Your task to perform on an android device: Open the calendar and show me this week's events Image 0: 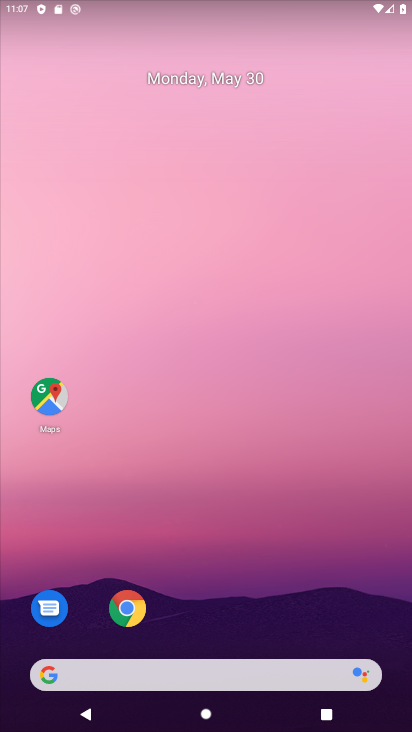
Step 0: drag from (271, 631) to (275, 4)
Your task to perform on an android device: Open the calendar and show me this week's events Image 1: 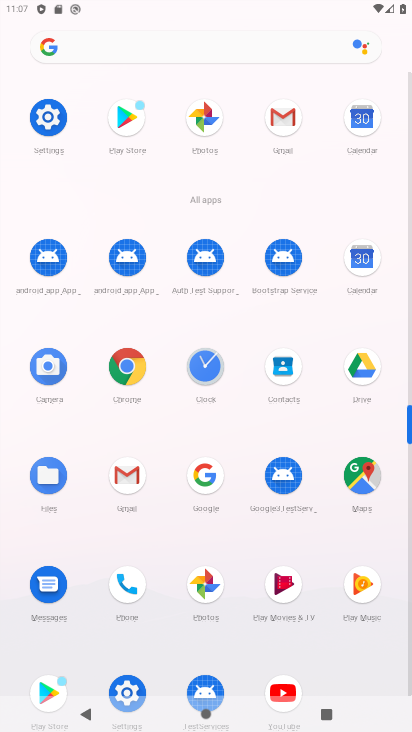
Step 1: click (350, 122)
Your task to perform on an android device: Open the calendar and show me this week's events Image 2: 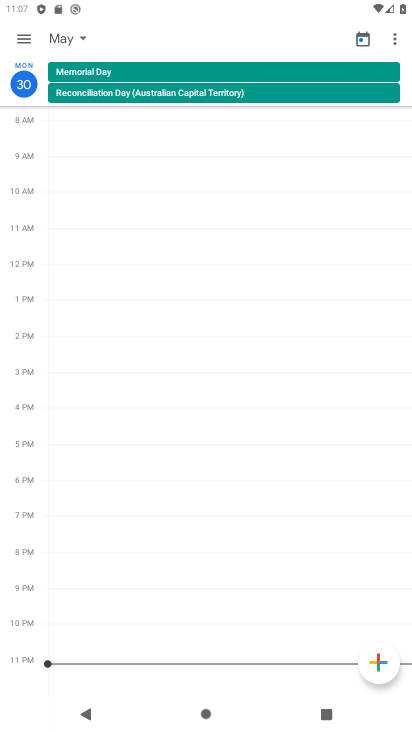
Step 2: click (21, 38)
Your task to perform on an android device: Open the calendar and show me this week's events Image 3: 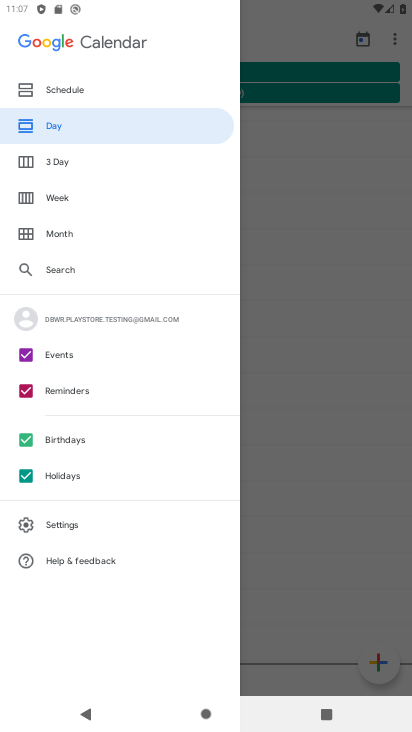
Step 3: click (30, 198)
Your task to perform on an android device: Open the calendar and show me this week's events Image 4: 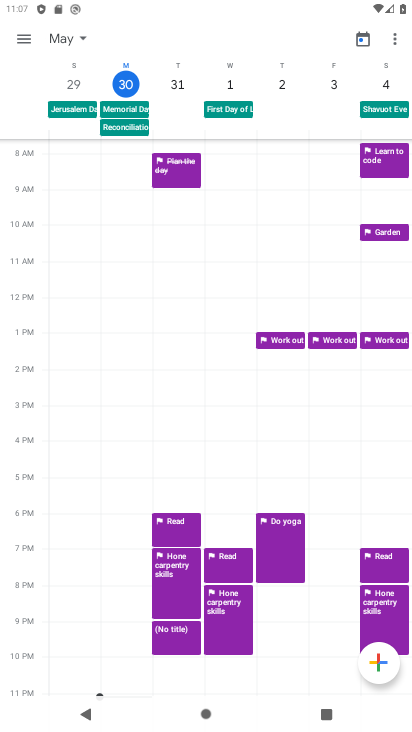
Step 4: click (19, 45)
Your task to perform on an android device: Open the calendar and show me this week's events Image 5: 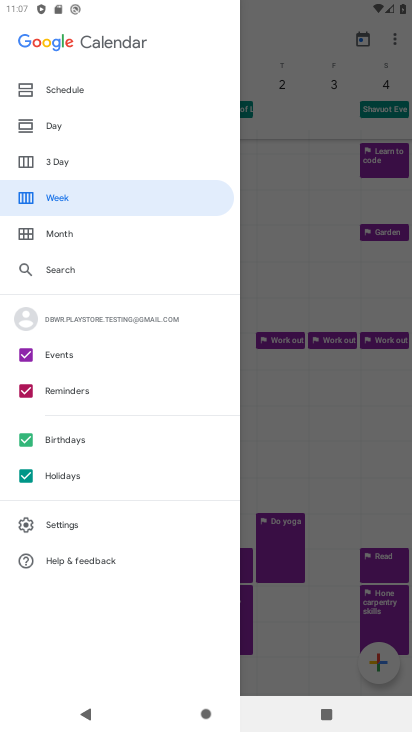
Step 5: click (24, 391)
Your task to perform on an android device: Open the calendar and show me this week's events Image 6: 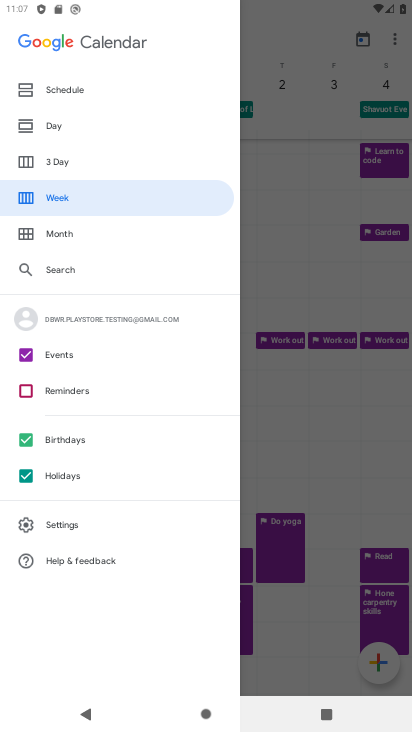
Step 6: click (18, 444)
Your task to perform on an android device: Open the calendar and show me this week's events Image 7: 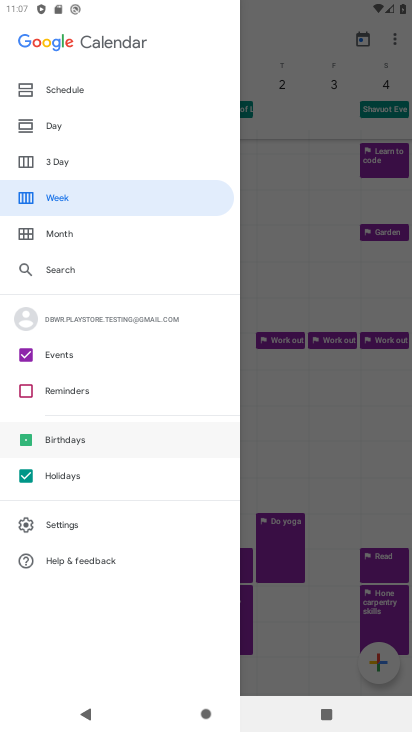
Step 7: click (25, 482)
Your task to perform on an android device: Open the calendar and show me this week's events Image 8: 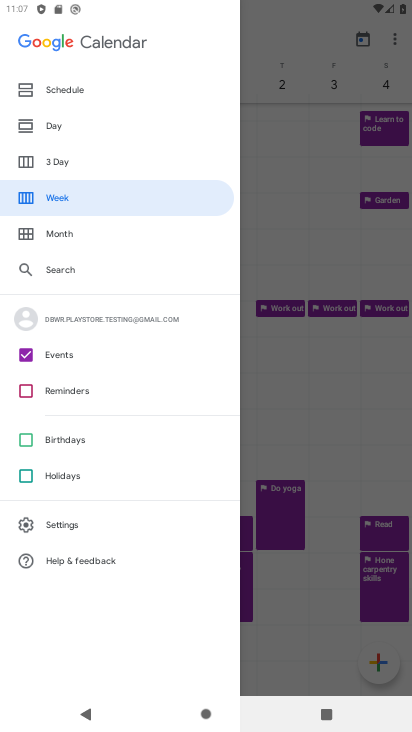
Step 8: click (39, 188)
Your task to perform on an android device: Open the calendar and show me this week's events Image 9: 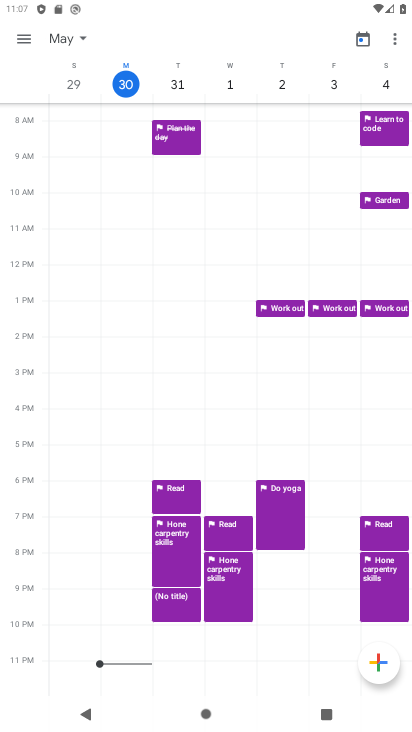
Step 9: task complete